Your task to perform on an android device: toggle improve location accuracy Image 0: 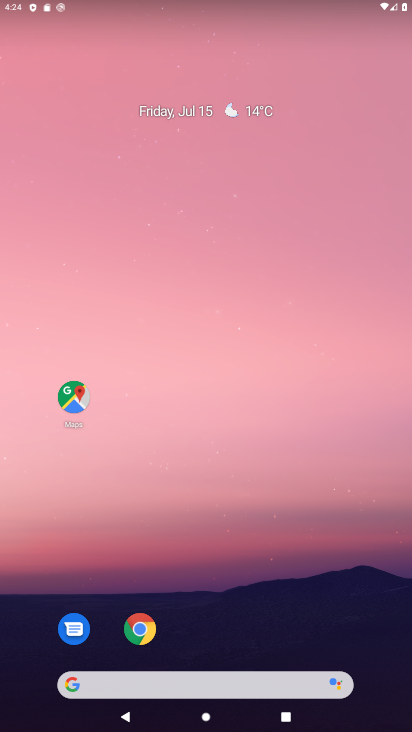
Step 0: drag from (230, 705) to (257, 125)
Your task to perform on an android device: toggle improve location accuracy Image 1: 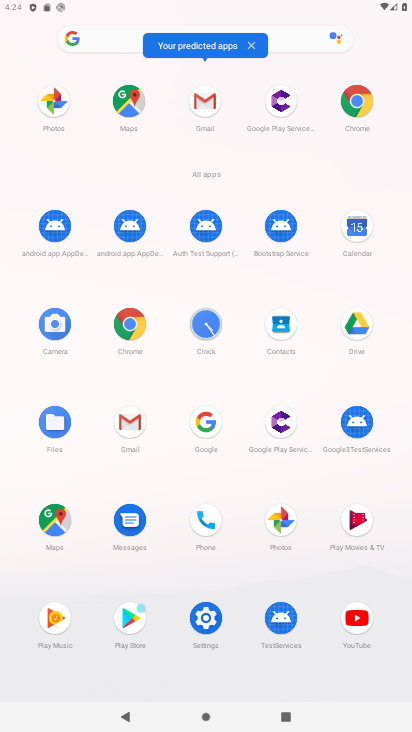
Step 1: click (203, 614)
Your task to perform on an android device: toggle improve location accuracy Image 2: 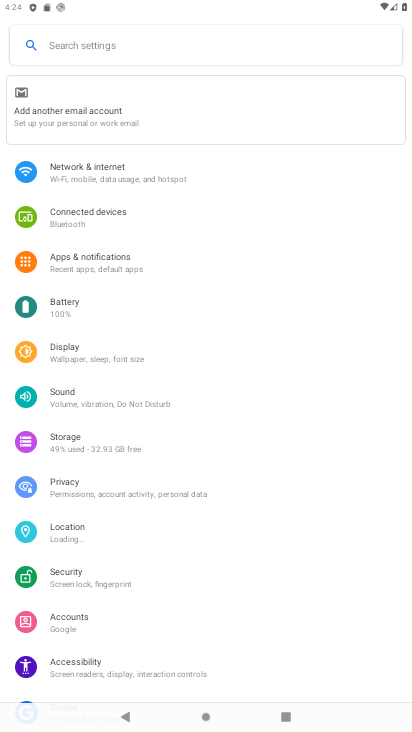
Step 2: click (58, 530)
Your task to perform on an android device: toggle improve location accuracy Image 3: 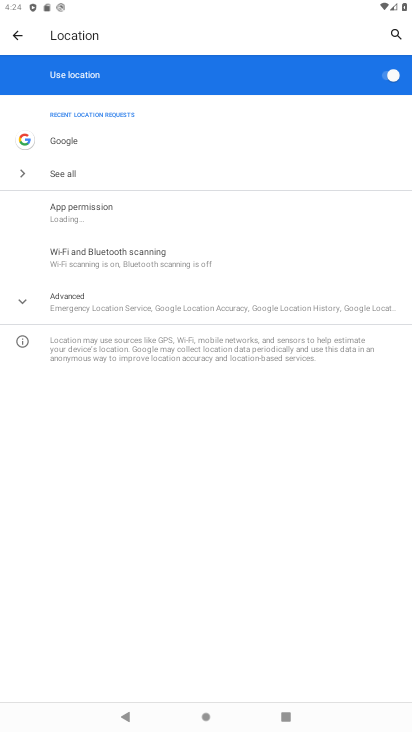
Step 3: click (76, 300)
Your task to perform on an android device: toggle improve location accuracy Image 4: 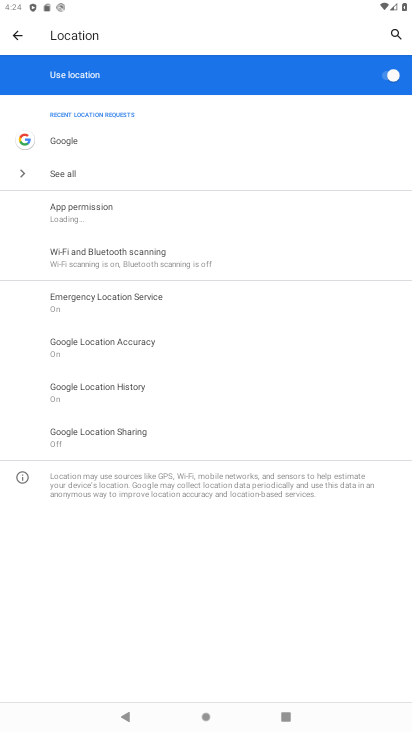
Step 4: click (115, 344)
Your task to perform on an android device: toggle improve location accuracy Image 5: 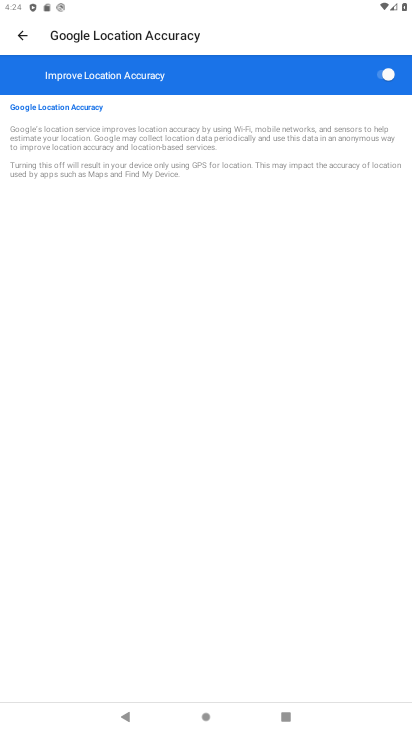
Step 5: click (382, 75)
Your task to perform on an android device: toggle improve location accuracy Image 6: 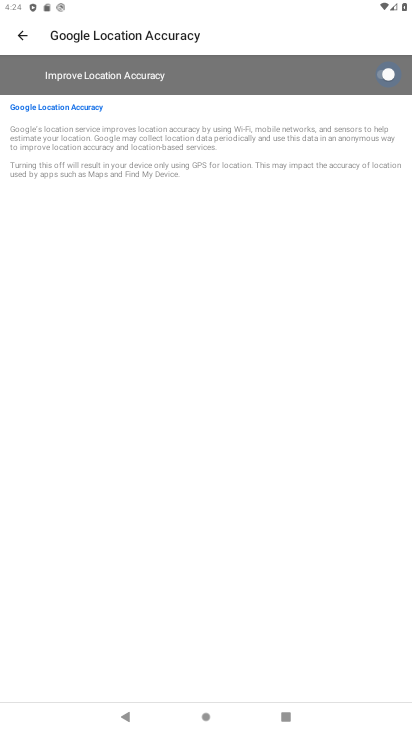
Step 6: click (382, 75)
Your task to perform on an android device: toggle improve location accuracy Image 7: 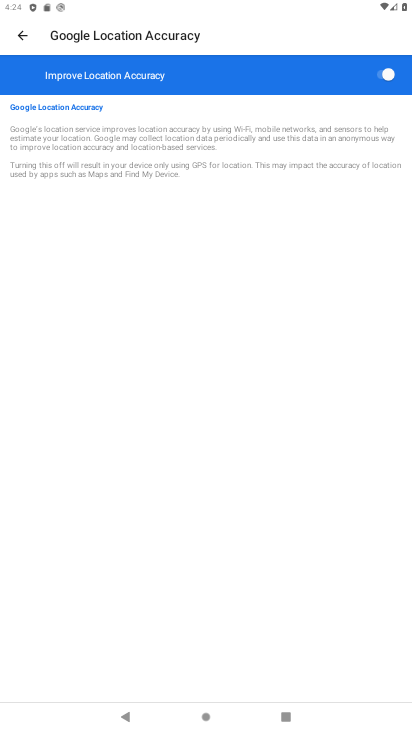
Step 7: click (386, 79)
Your task to perform on an android device: toggle improve location accuracy Image 8: 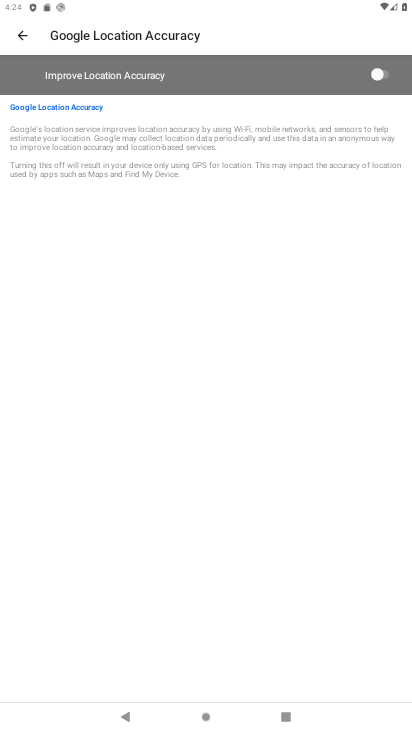
Step 8: task complete